Your task to perform on an android device: open app "Messenger Lite" (install if not already installed) Image 0: 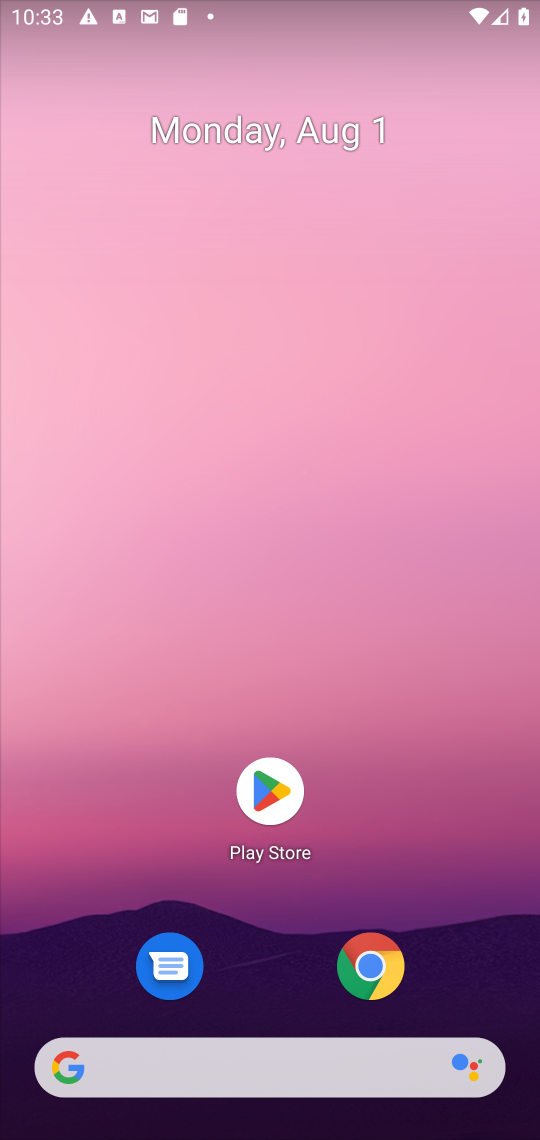
Step 0: drag from (513, 1035) to (444, 262)
Your task to perform on an android device: open app "Messenger Lite" (install if not already installed) Image 1: 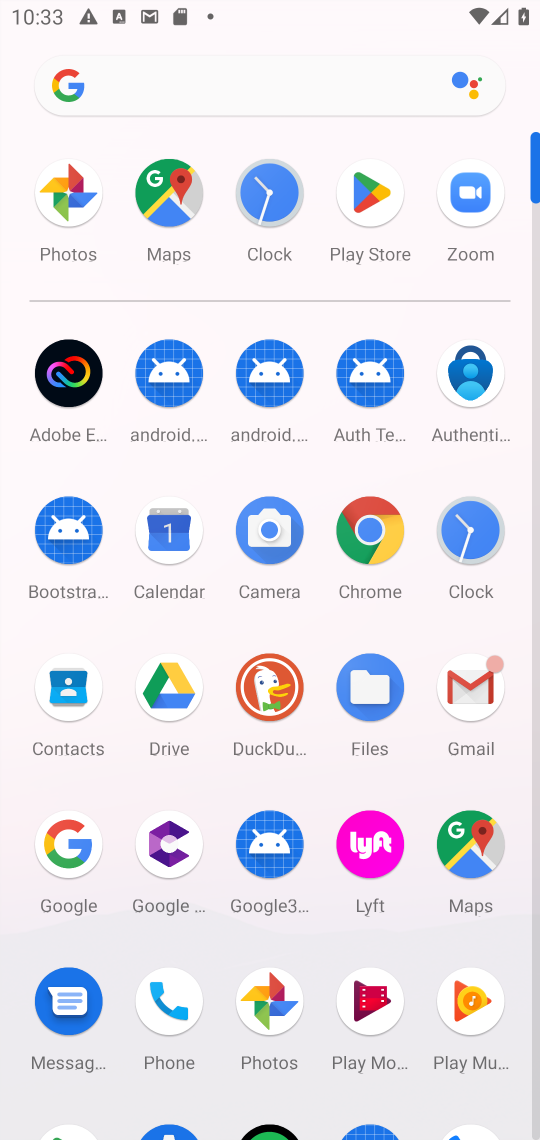
Step 1: drag from (415, 934) to (383, 535)
Your task to perform on an android device: open app "Messenger Lite" (install if not already installed) Image 2: 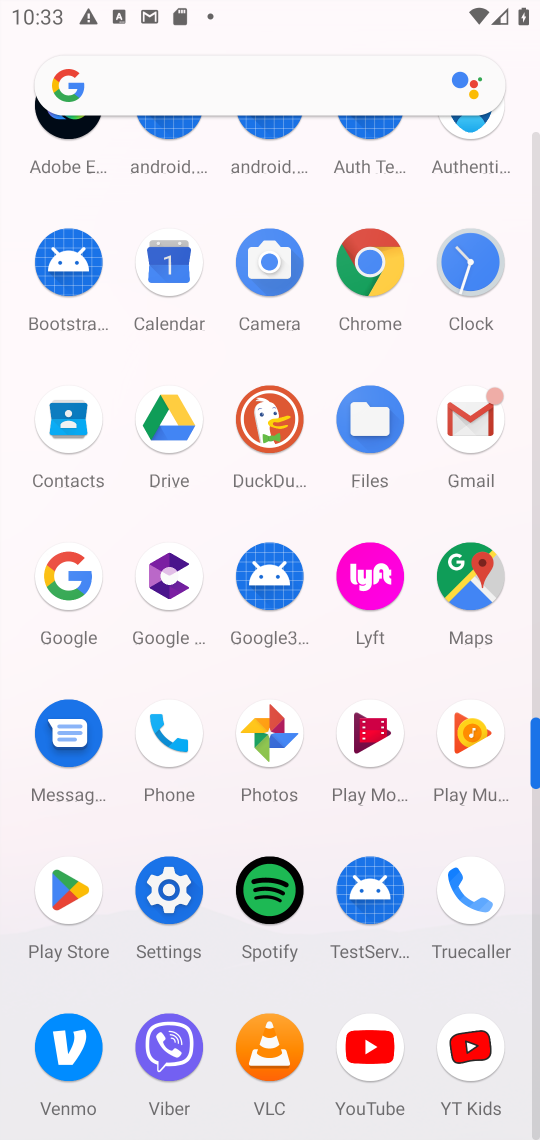
Step 2: click (49, 881)
Your task to perform on an android device: open app "Messenger Lite" (install if not already installed) Image 3: 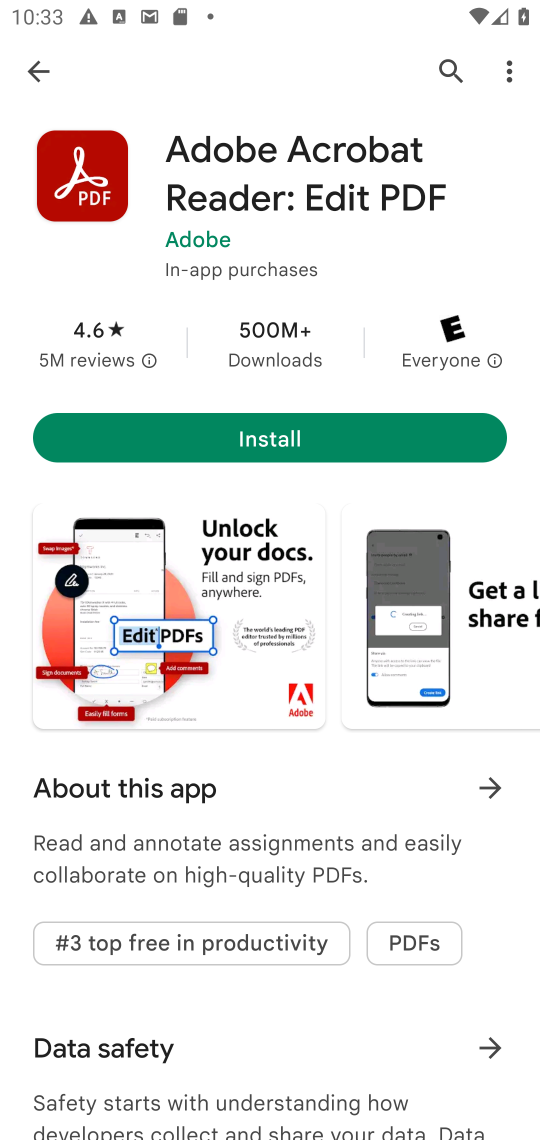
Step 3: click (455, 67)
Your task to perform on an android device: open app "Messenger Lite" (install if not already installed) Image 4: 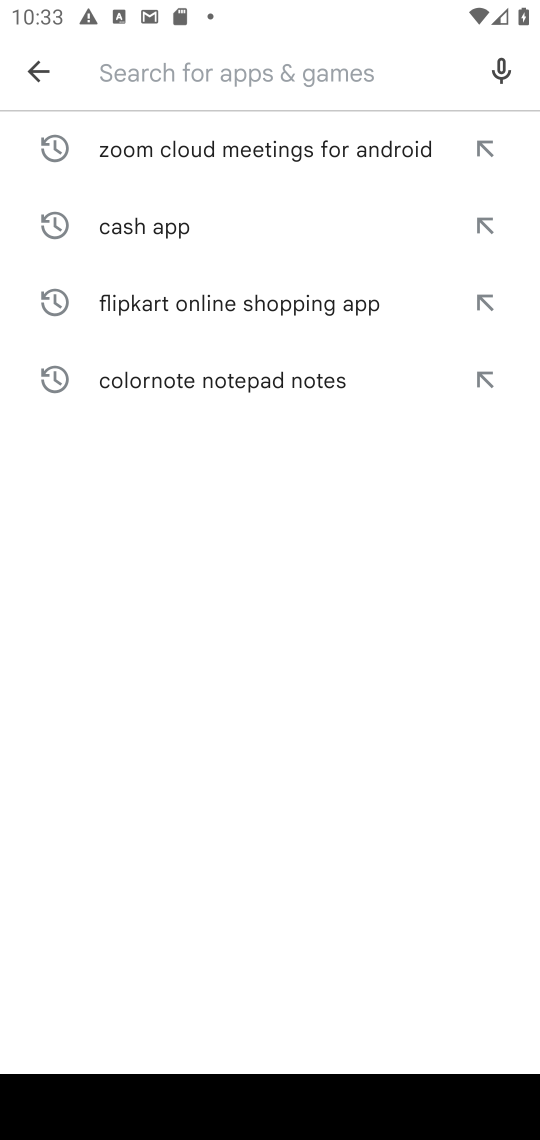
Step 4: type "Messenger Lite"
Your task to perform on an android device: open app "Messenger Lite" (install if not already installed) Image 5: 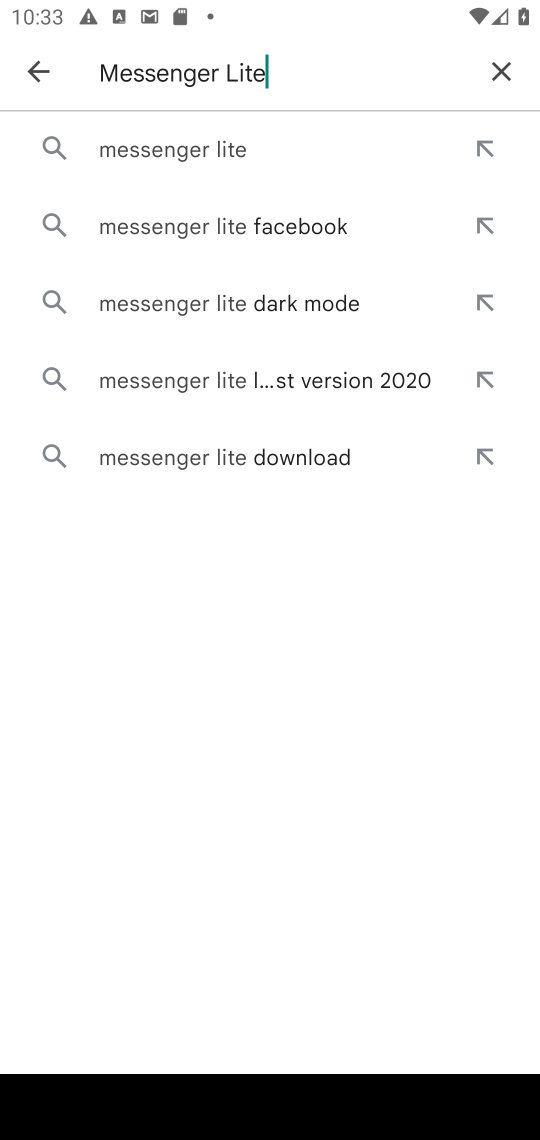
Step 5: click (204, 147)
Your task to perform on an android device: open app "Messenger Lite" (install if not already installed) Image 6: 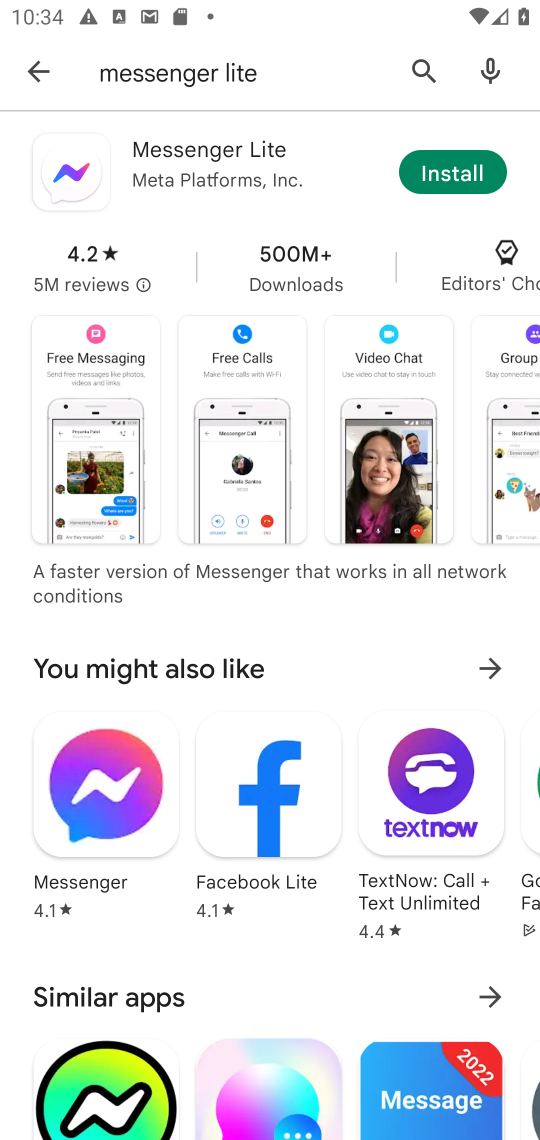
Step 6: task complete